Your task to perform on an android device: turn on improve location accuracy Image 0: 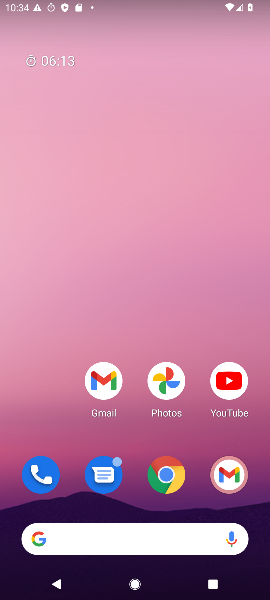
Step 0: drag from (137, 505) to (114, 37)
Your task to perform on an android device: turn on improve location accuracy Image 1: 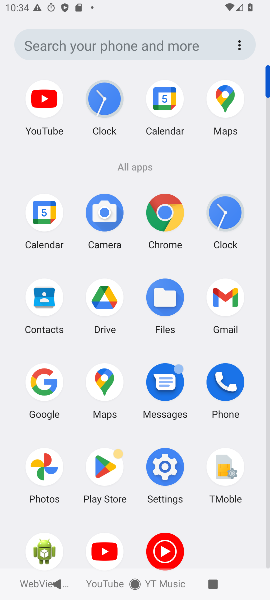
Step 1: click (165, 461)
Your task to perform on an android device: turn on improve location accuracy Image 2: 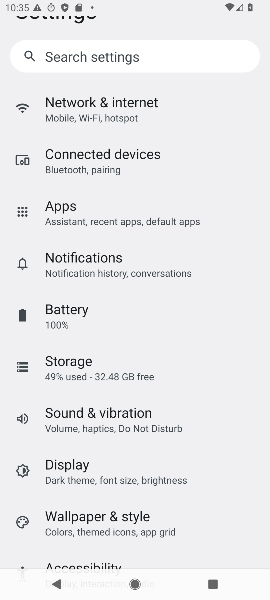
Step 2: drag from (96, 503) to (125, 257)
Your task to perform on an android device: turn on improve location accuracy Image 3: 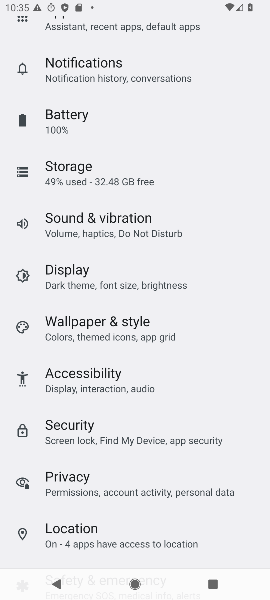
Step 3: drag from (91, 442) to (101, 389)
Your task to perform on an android device: turn on improve location accuracy Image 4: 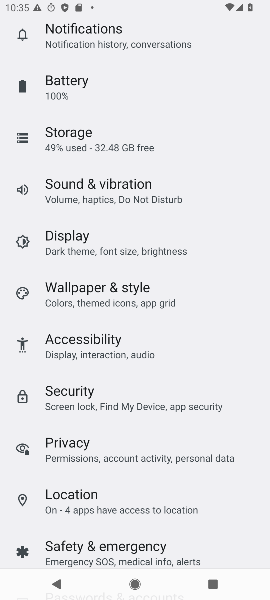
Step 4: click (82, 497)
Your task to perform on an android device: turn on improve location accuracy Image 5: 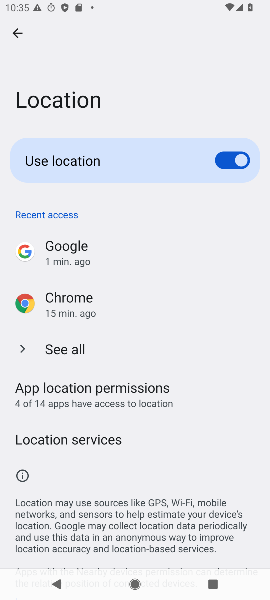
Step 5: click (82, 437)
Your task to perform on an android device: turn on improve location accuracy Image 6: 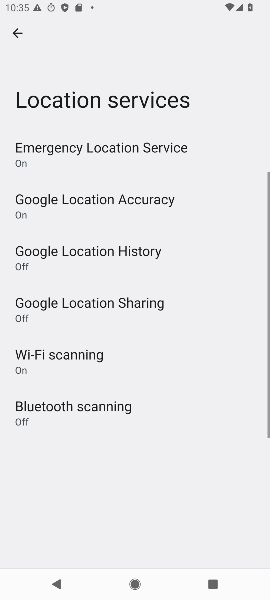
Step 6: click (127, 202)
Your task to perform on an android device: turn on improve location accuracy Image 7: 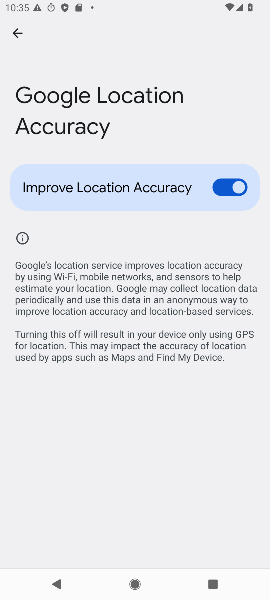
Step 7: task complete